Your task to perform on an android device: manage bookmarks in the chrome app Image 0: 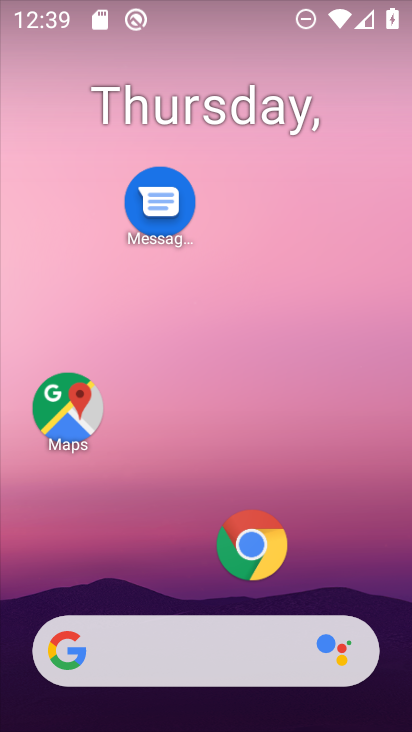
Step 0: click (272, 525)
Your task to perform on an android device: manage bookmarks in the chrome app Image 1: 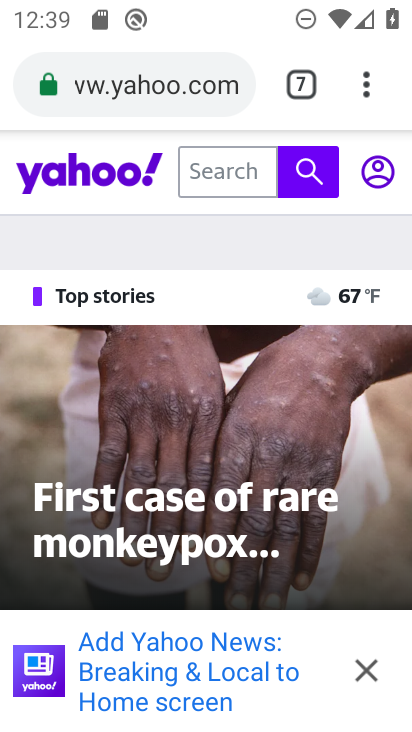
Step 1: click (367, 88)
Your task to perform on an android device: manage bookmarks in the chrome app Image 2: 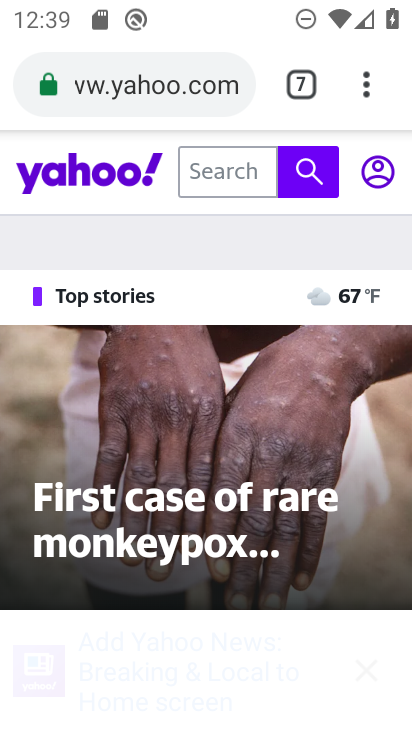
Step 2: task complete